Your task to perform on an android device: see tabs open on other devices in the chrome app Image 0: 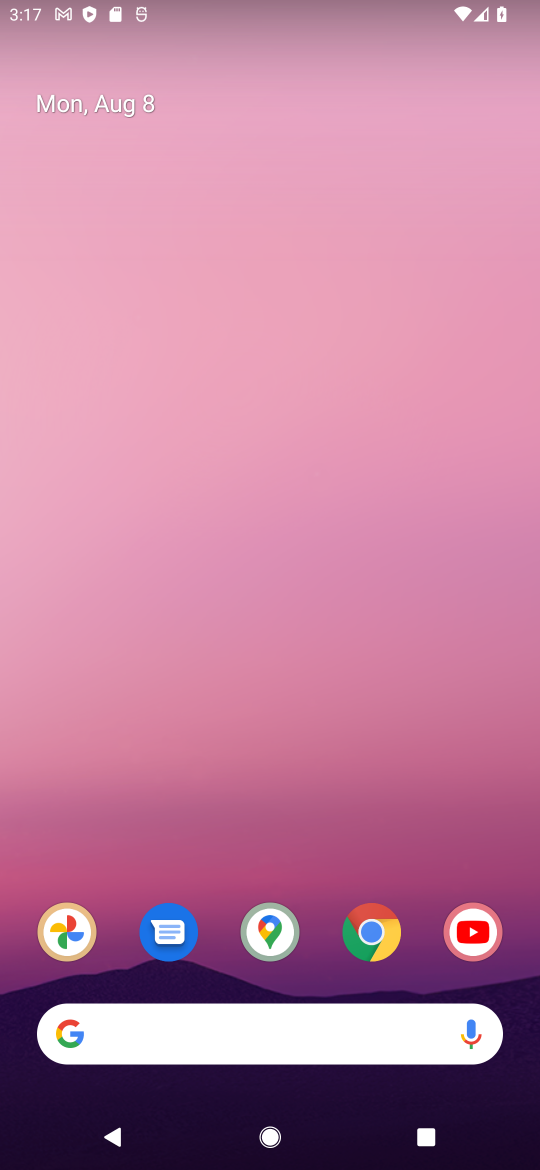
Step 0: click (375, 908)
Your task to perform on an android device: see tabs open on other devices in the chrome app Image 1: 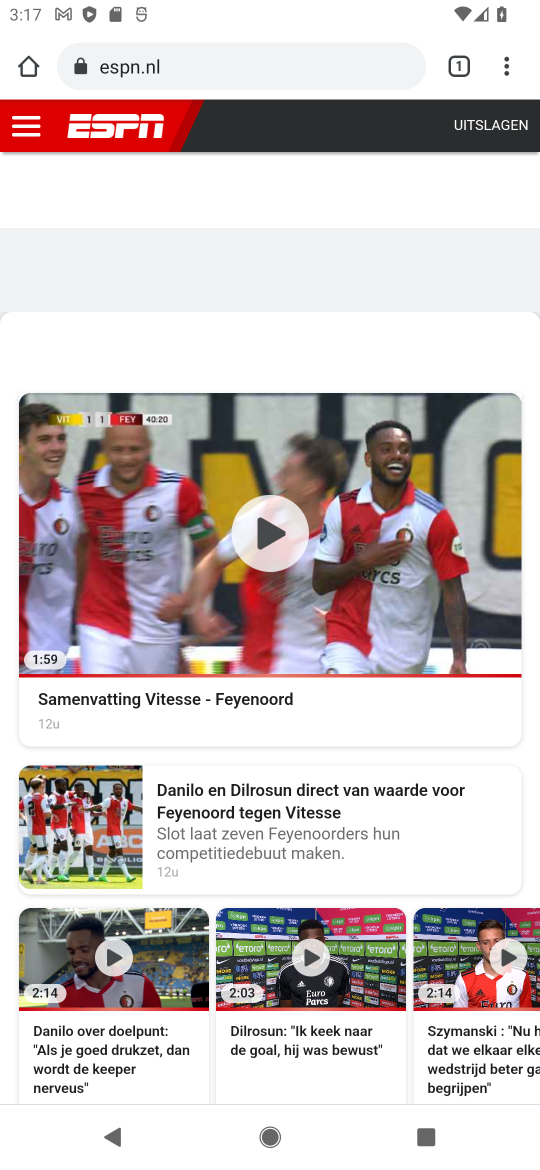
Step 1: click (518, 63)
Your task to perform on an android device: see tabs open on other devices in the chrome app Image 2: 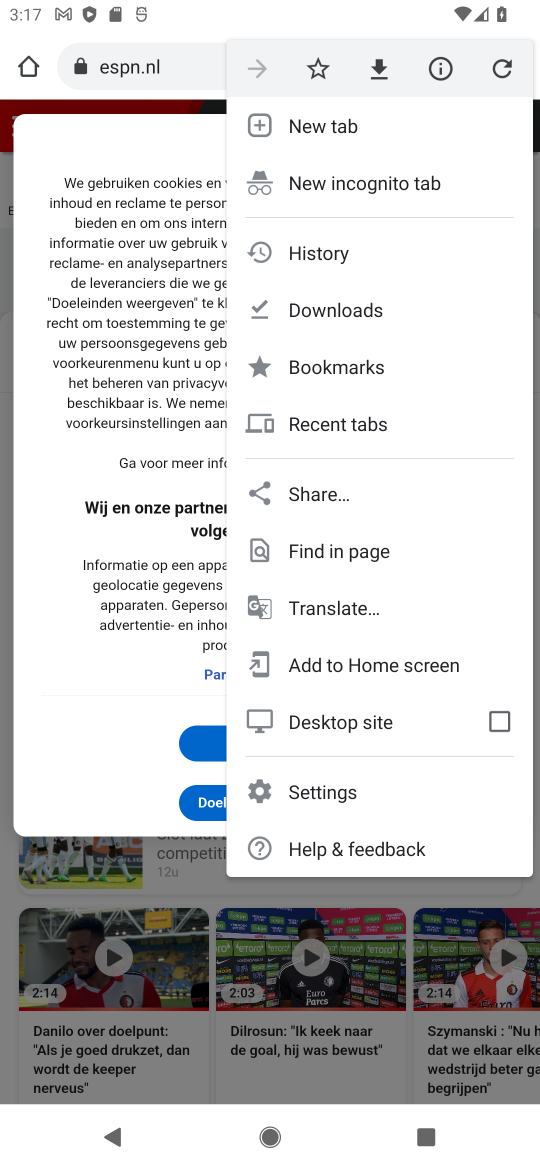
Step 2: click (381, 427)
Your task to perform on an android device: see tabs open on other devices in the chrome app Image 3: 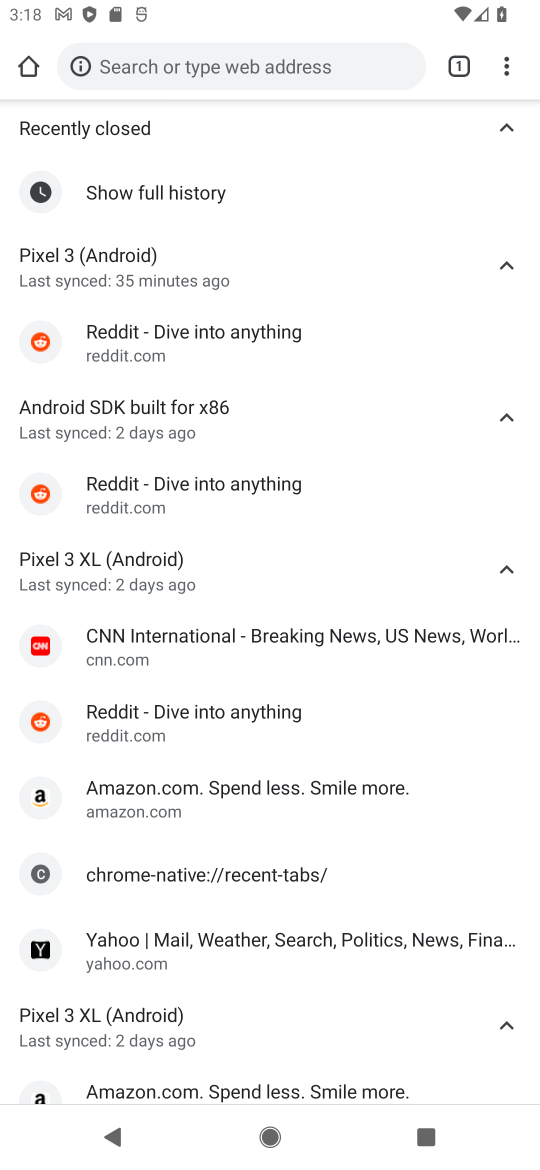
Step 3: task complete